Your task to perform on an android device: Find coffee shops on Maps Image 0: 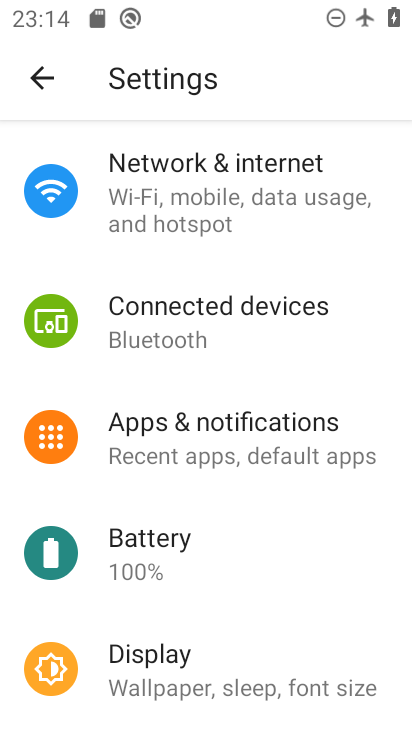
Step 0: press home button
Your task to perform on an android device: Find coffee shops on Maps Image 1: 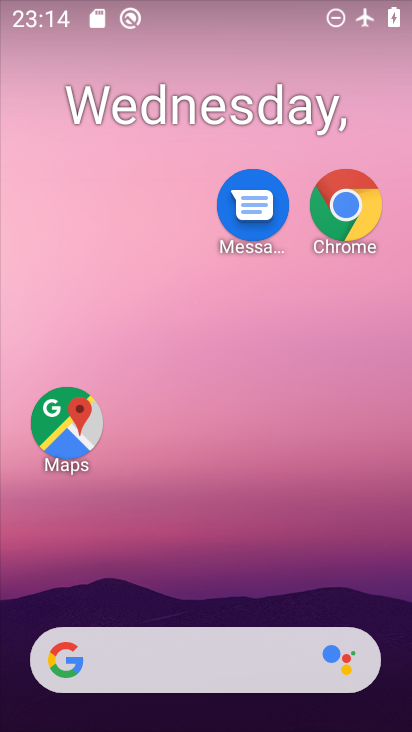
Step 1: drag from (179, 589) to (250, 193)
Your task to perform on an android device: Find coffee shops on Maps Image 2: 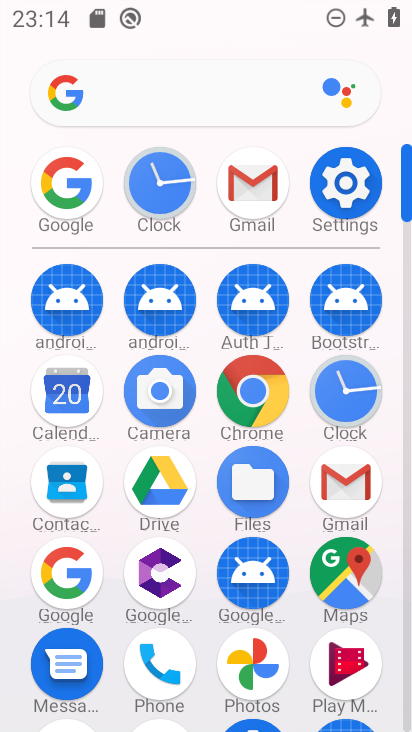
Step 2: click (349, 565)
Your task to perform on an android device: Find coffee shops on Maps Image 3: 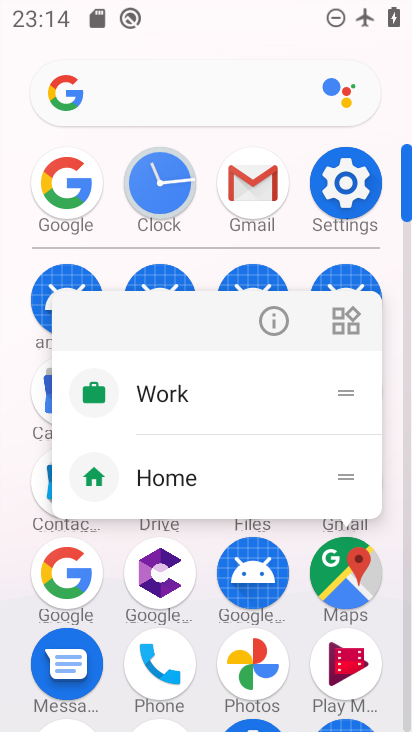
Step 3: click (274, 335)
Your task to perform on an android device: Find coffee shops on Maps Image 4: 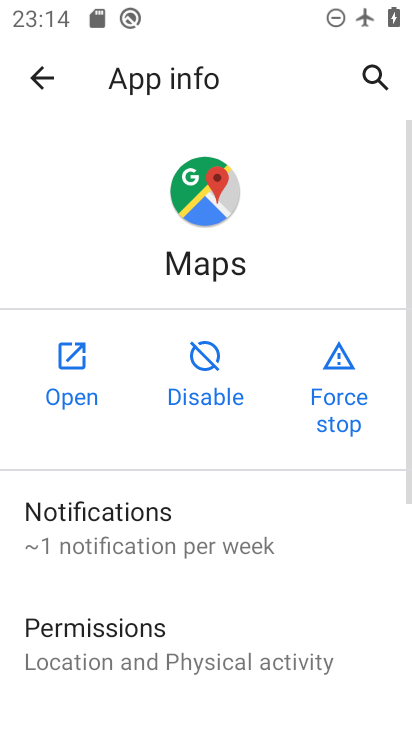
Step 4: click (75, 360)
Your task to perform on an android device: Find coffee shops on Maps Image 5: 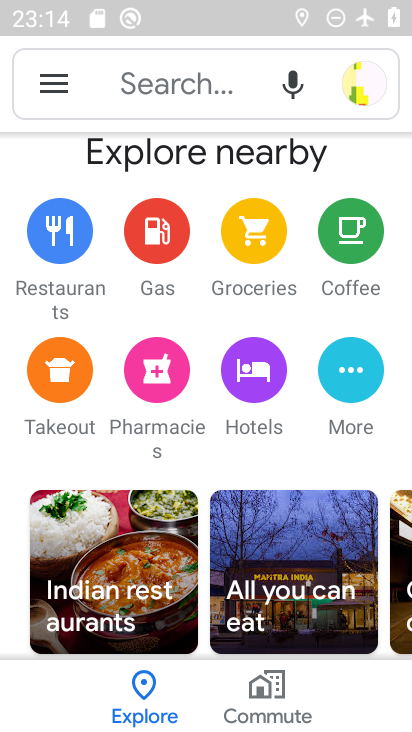
Step 5: task complete